Your task to perform on an android device: Turn off the flashlight Image 0: 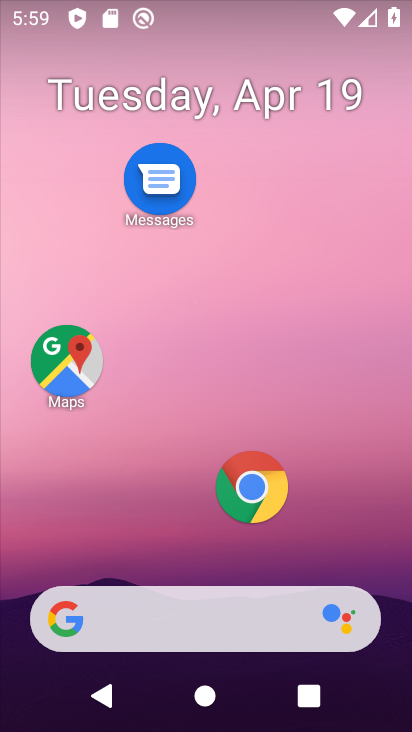
Step 0: drag from (207, 553) to (237, 59)
Your task to perform on an android device: Turn off the flashlight Image 1: 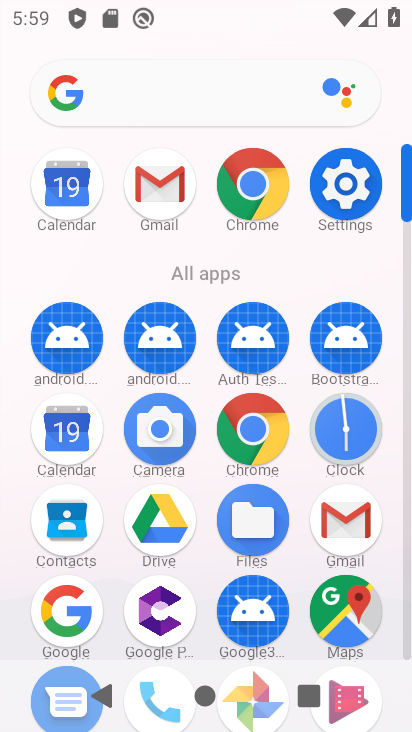
Step 1: click (344, 178)
Your task to perform on an android device: Turn off the flashlight Image 2: 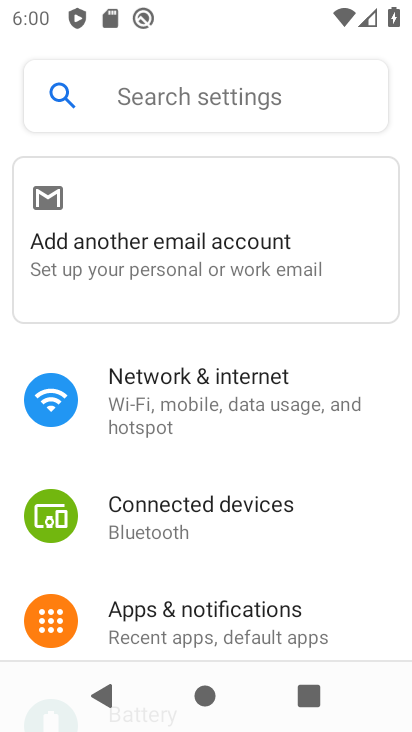
Step 2: click (175, 94)
Your task to perform on an android device: Turn off the flashlight Image 3: 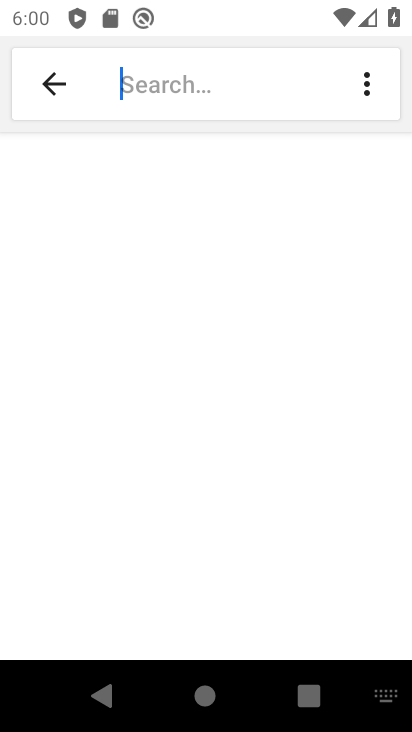
Step 3: type "flashlight"
Your task to perform on an android device: Turn off the flashlight Image 4: 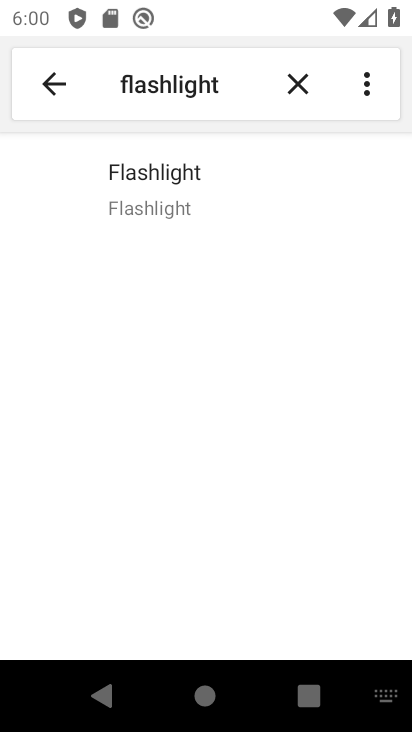
Step 4: click (196, 199)
Your task to perform on an android device: Turn off the flashlight Image 5: 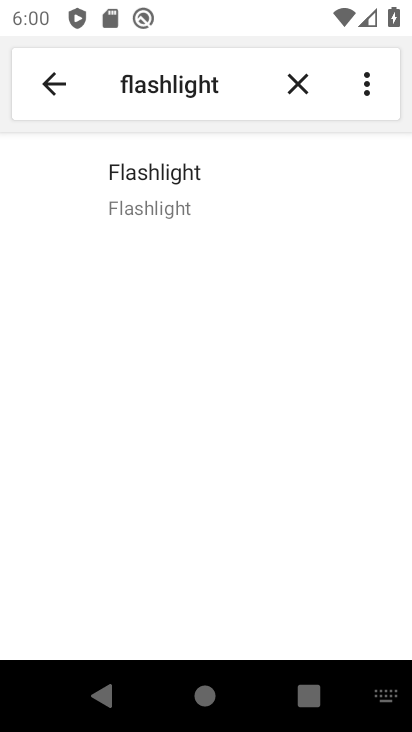
Step 5: click (198, 198)
Your task to perform on an android device: Turn off the flashlight Image 6: 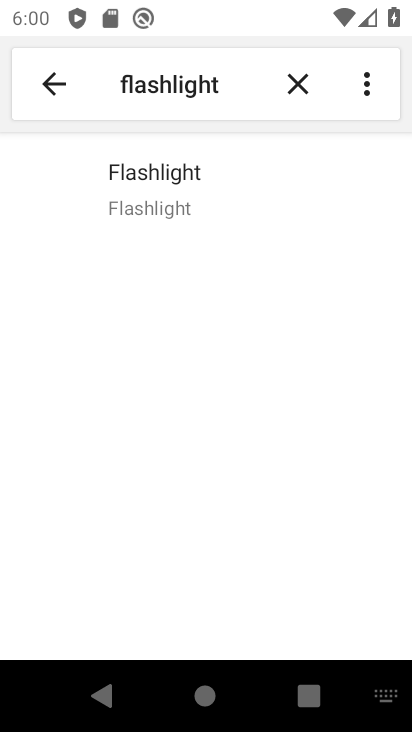
Step 6: task complete